Your task to perform on an android device: Do I have any events tomorrow? Image 0: 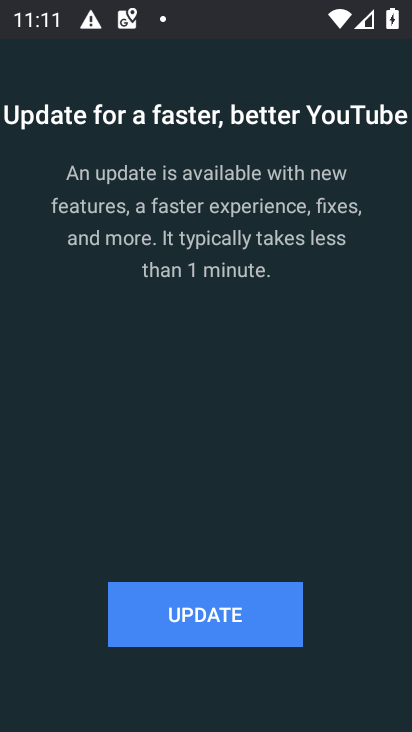
Step 0: press home button
Your task to perform on an android device: Do I have any events tomorrow? Image 1: 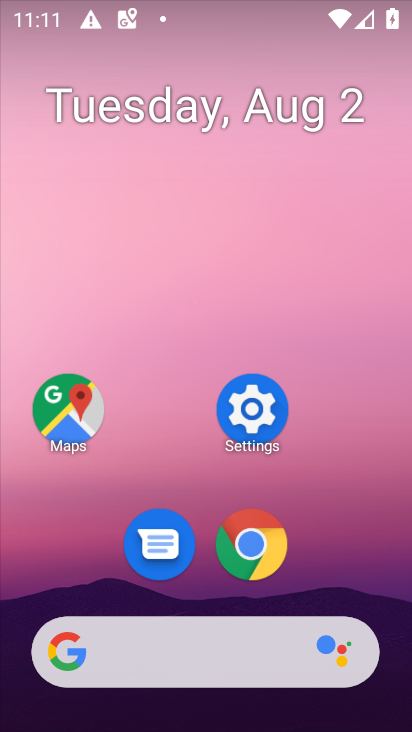
Step 1: drag from (221, 654) to (328, 31)
Your task to perform on an android device: Do I have any events tomorrow? Image 2: 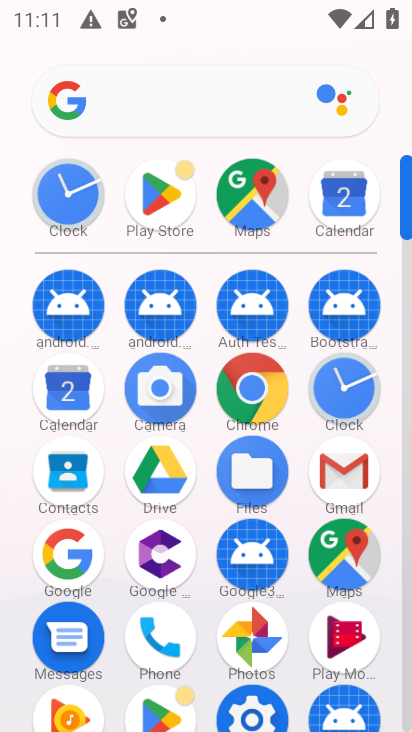
Step 2: click (74, 394)
Your task to perform on an android device: Do I have any events tomorrow? Image 3: 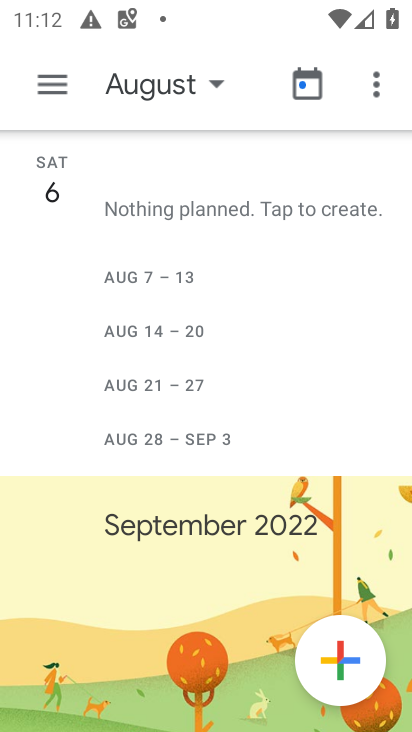
Step 3: click (171, 86)
Your task to perform on an android device: Do I have any events tomorrow? Image 4: 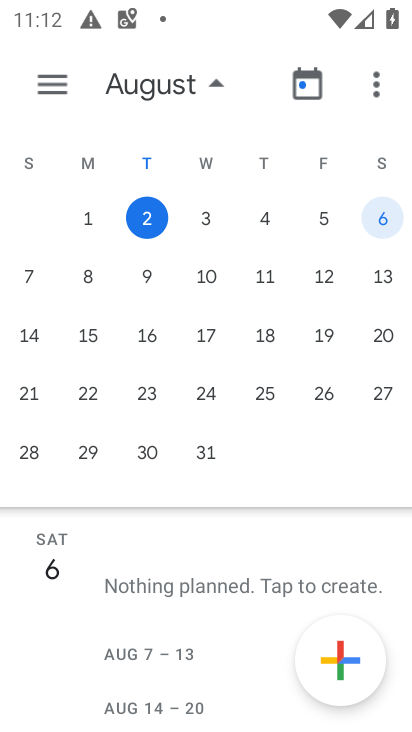
Step 4: click (210, 214)
Your task to perform on an android device: Do I have any events tomorrow? Image 5: 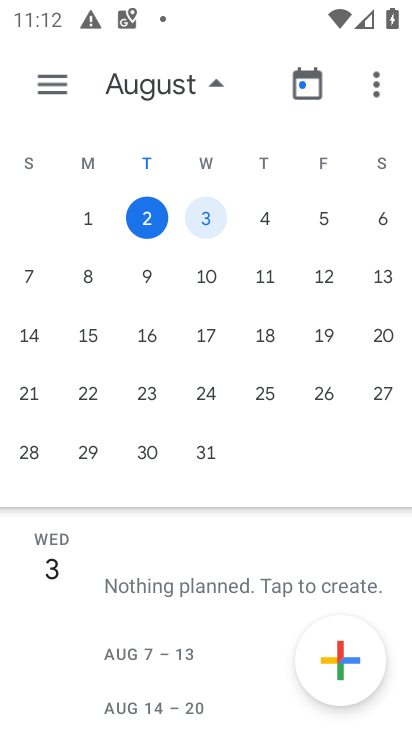
Step 5: click (59, 73)
Your task to perform on an android device: Do I have any events tomorrow? Image 6: 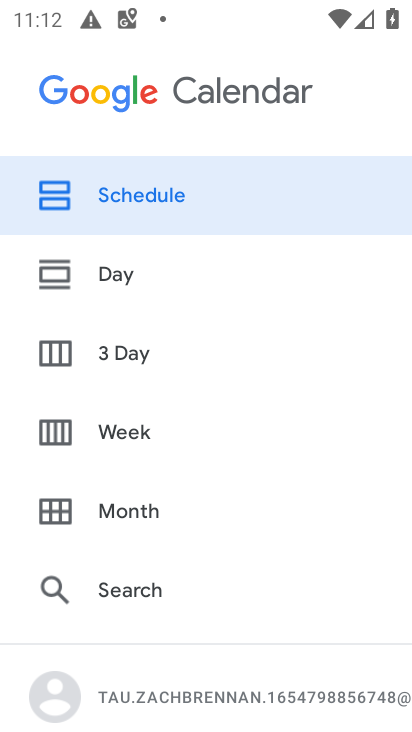
Step 6: click (163, 191)
Your task to perform on an android device: Do I have any events tomorrow? Image 7: 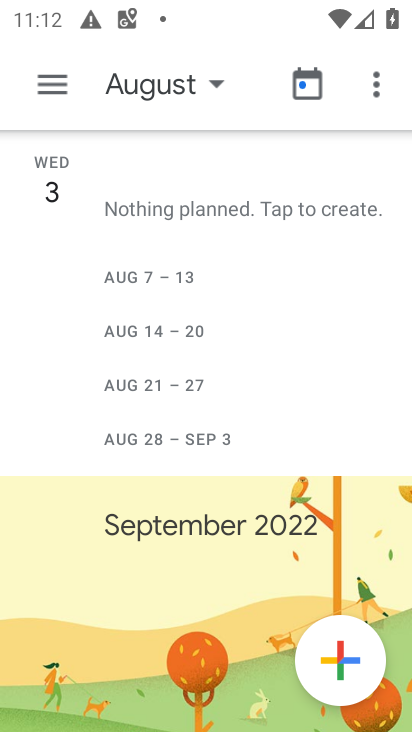
Step 7: task complete